Your task to perform on an android device: turn on the 24-hour format for clock Image 0: 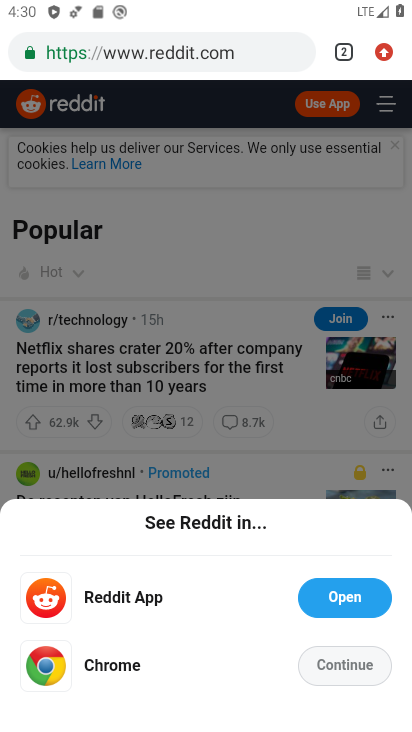
Step 0: press back button
Your task to perform on an android device: turn on the 24-hour format for clock Image 1: 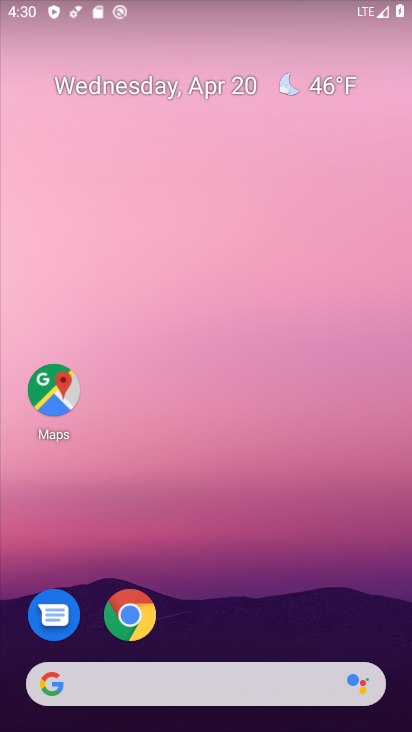
Step 1: drag from (253, 477) to (272, 31)
Your task to perform on an android device: turn on the 24-hour format for clock Image 2: 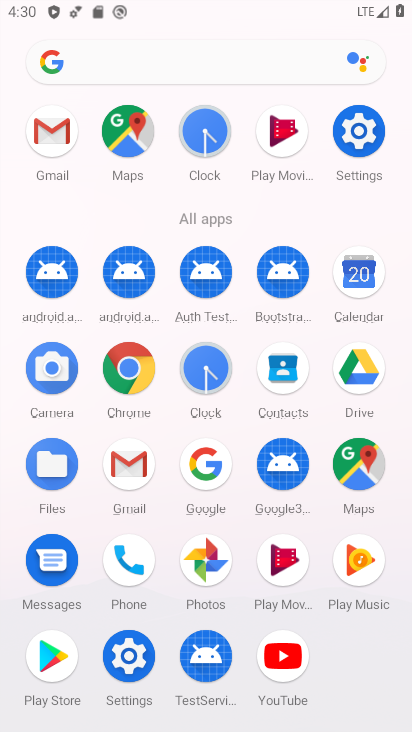
Step 2: click (207, 126)
Your task to perform on an android device: turn on the 24-hour format for clock Image 3: 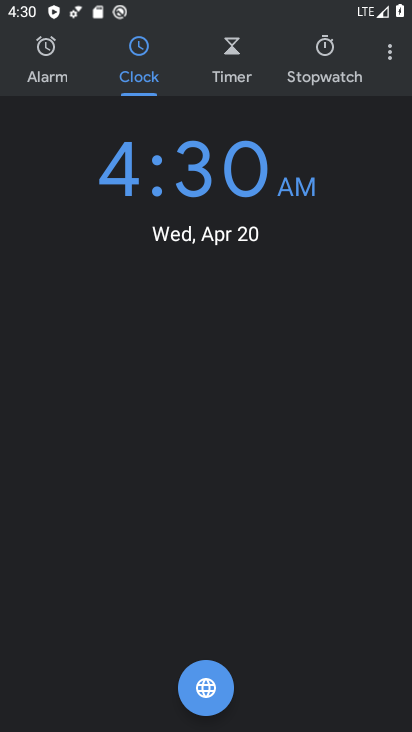
Step 3: click (385, 48)
Your task to perform on an android device: turn on the 24-hour format for clock Image 4: 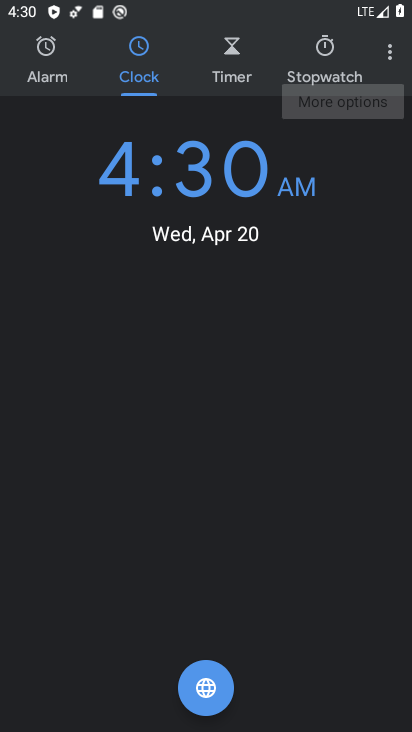
Step 4: click (397, 51)
Your task to perform on an android device: turn on the 24-hour format for clock Image 5: 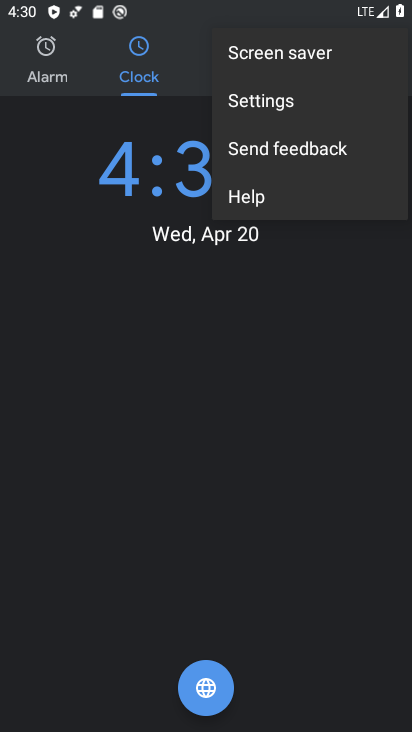
Step 5: click (269, 96)
Your task to perform on an android device: turn on the 24-hour format for clock Image 6: 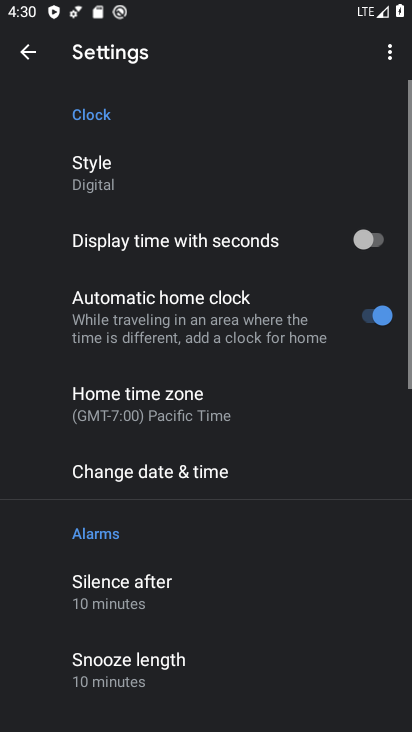
Step 6: click (182, 475)
Your task to perform on an android device: turn on the 24-hour format for clock Image 7: 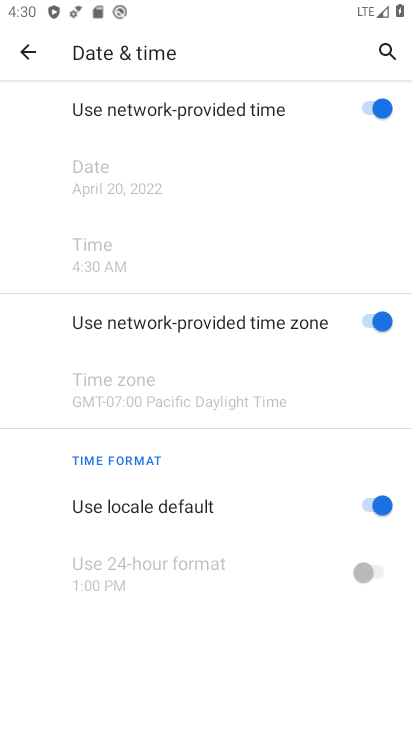
Step 7: click (372, 512)
Your task to perform on an android device: turn on the 24-hour format for clock Image 8: 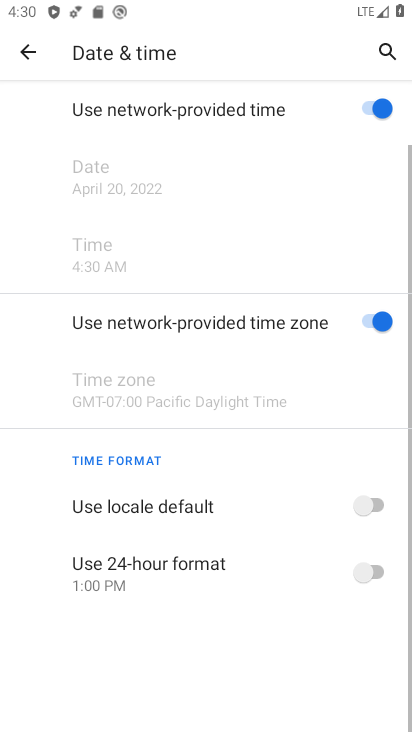
Step 8: click (364, 573)
Your task to perform on an android device: turn on the 24-hour format for clock Image 9: 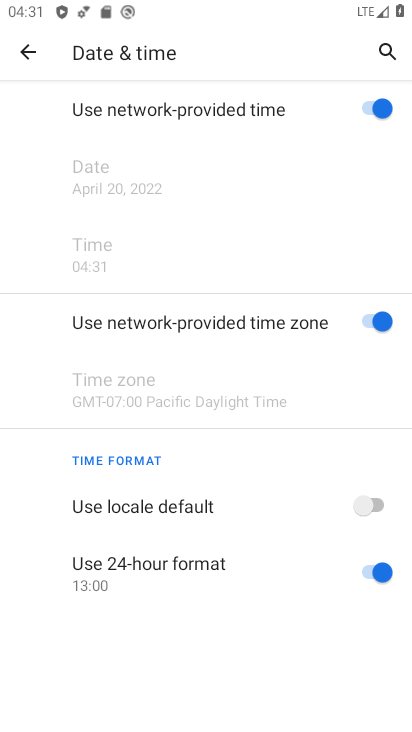
Step 9: task complete